Your task to perform on an android device: check battery use Image 0: 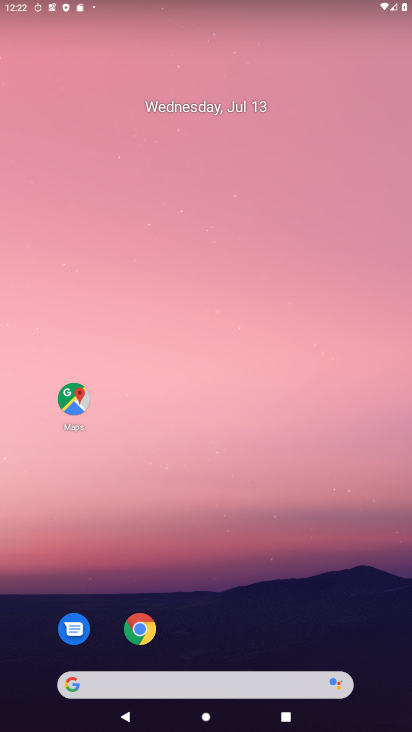
Step 0: drag from (171, 648) to (114, 155)
Your task to perform on an android device: check battery use Image 1: 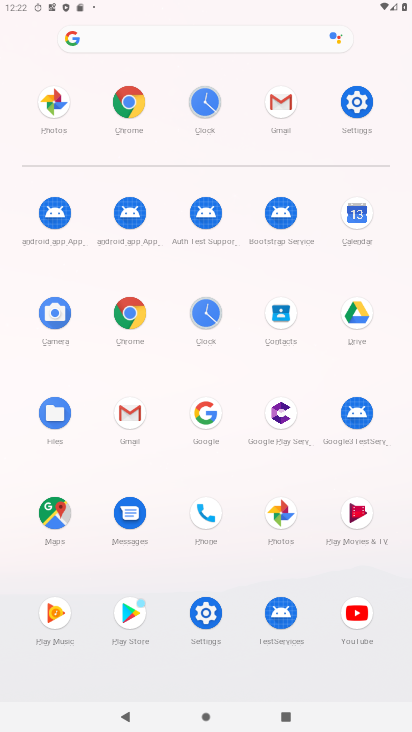
Step 1: click (356, 101)
Your task to perform on an android device: check battery use Image 2: 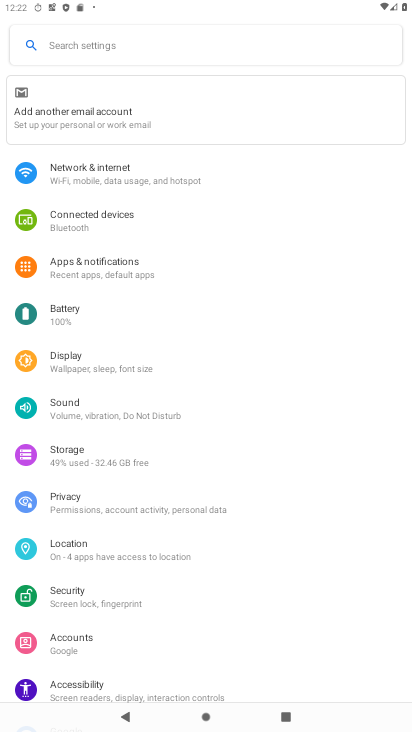
Step 2: click (107, 327)
Your task to perform on an android device: check battery use Image 3: 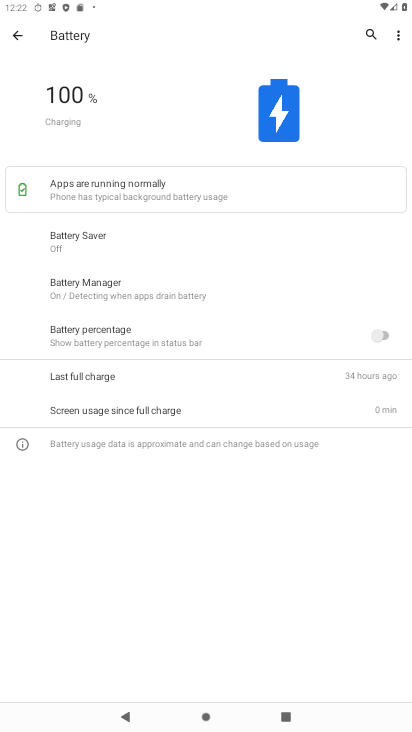
Step 3: click (397, 32)
Your task to perform on an android device: check battery use Image 4: 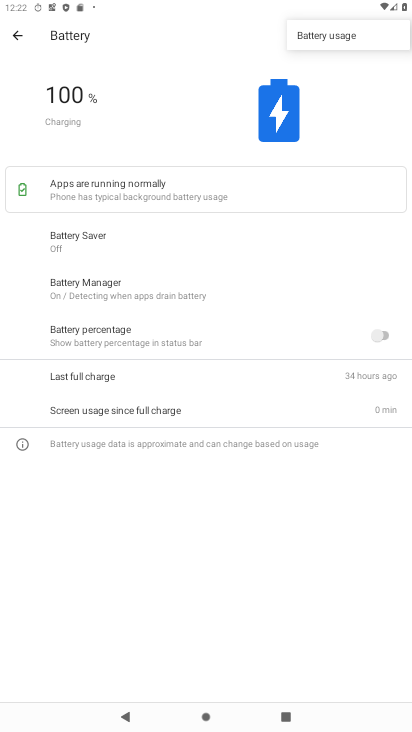
Step 4: click (339, 40)
Your task to perform on an android device: check battery use Image 5: 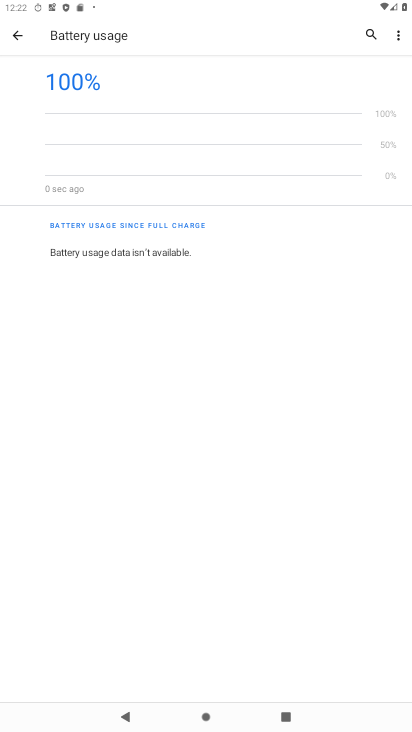
Step 5: task complete